Your task to perform on an android device: Open calendar and show me the first week of next month Image 0: 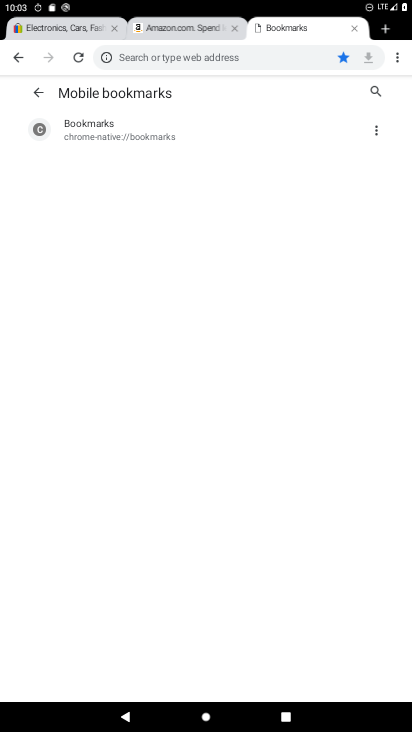
Step 0: press home button
Your task to perform on an android device: Open calendar and show me the first week of next month Image 1: 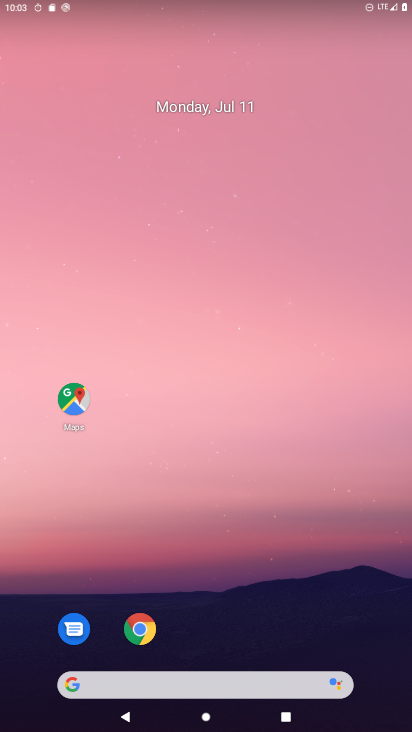
Step 1: click (189, 109)
Your task to perform on an android device: Open calendar and show me the first week of next month Image 2: 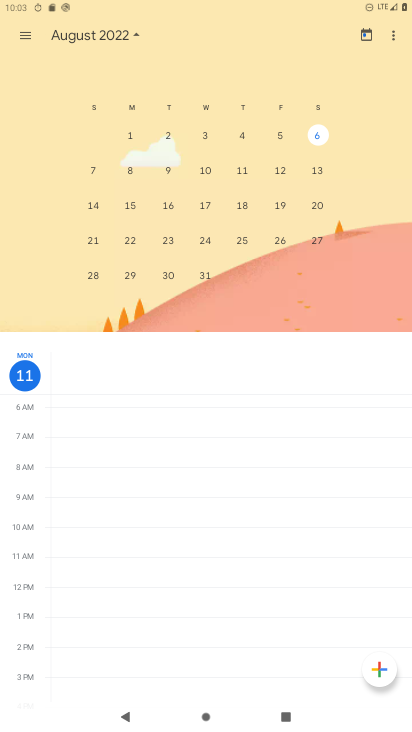
Step 2: click (310, 131)
Your task to perform on an android device: Open calendar and show me the first week of next month Image 3: 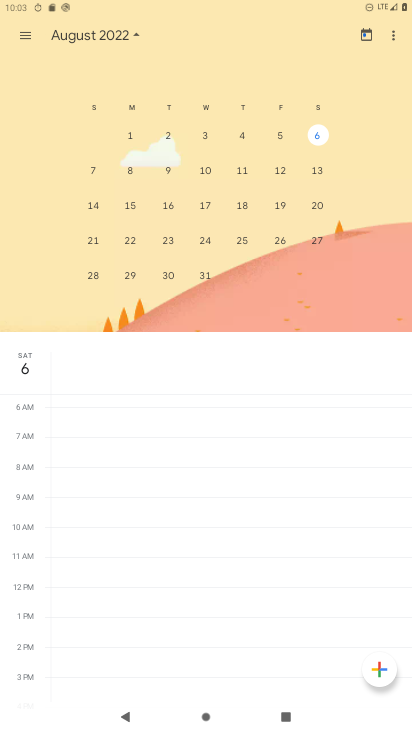
Step 3: task complete